Your task to perform on an android device: toggle javascript in the chrome app Image 0: 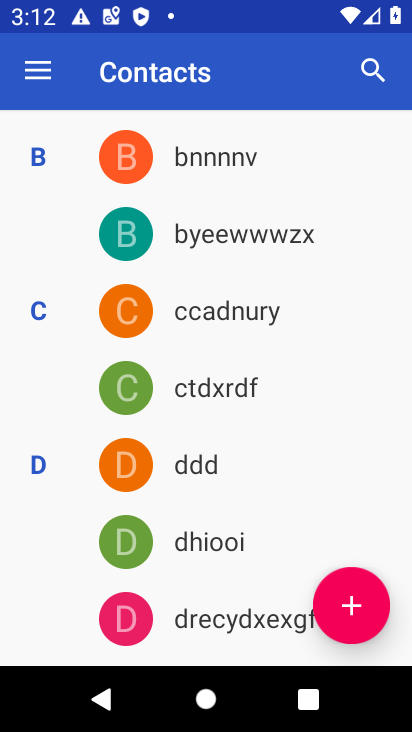
Step 0: press home button
Your task to perform on an android device: toggle javascript in the chrome app Image 1: 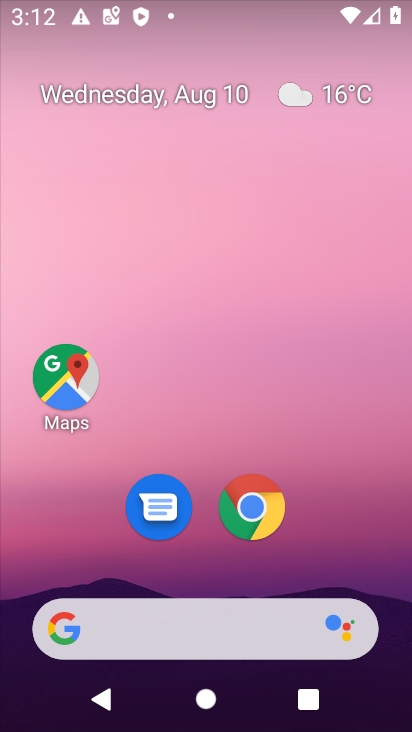
Step 1: drag from (308, 553) to (301, 4)
Your task to perform on an android device: toggle javascript in the chrome app Image 2: 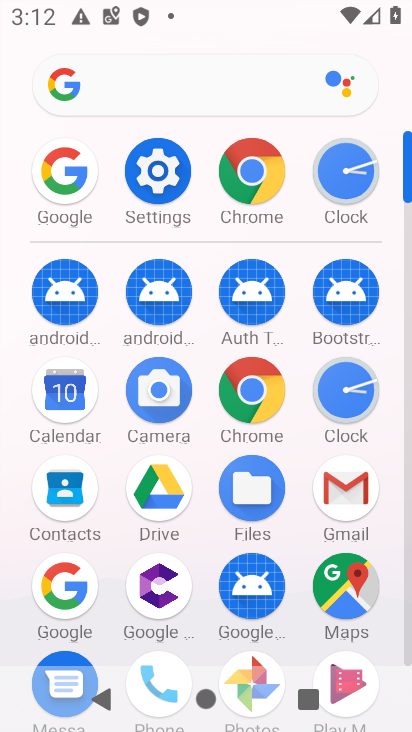
Step 2: click (251, 398)
Your task to perform on an android device: toggle javascript in the chrome app Image 3: 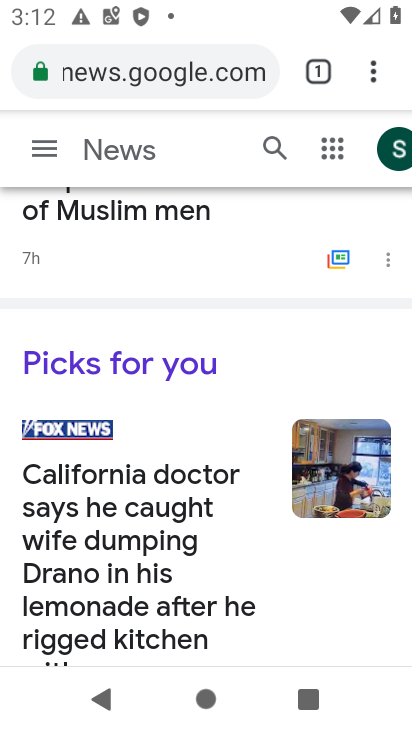
Step 3: drag from (383, 64) to (150, 501)
Your task to perform on an android device: toggle javascript in the chrome app Image 4: 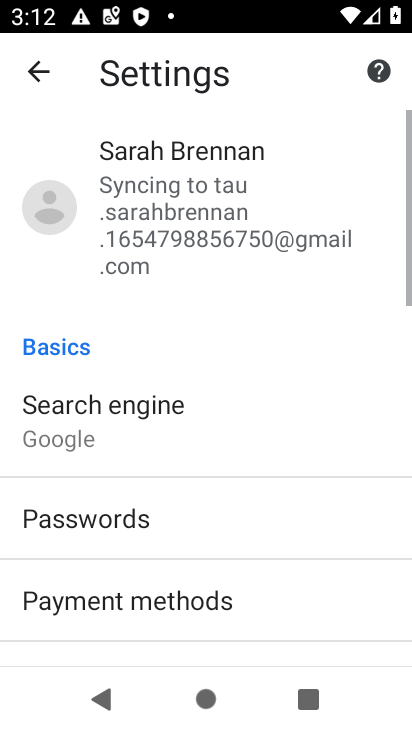
Step 4: drag from (262, 587) to (330, 18)
Your task to perform on an android device: toggle javascript in the chrome app Image 5: 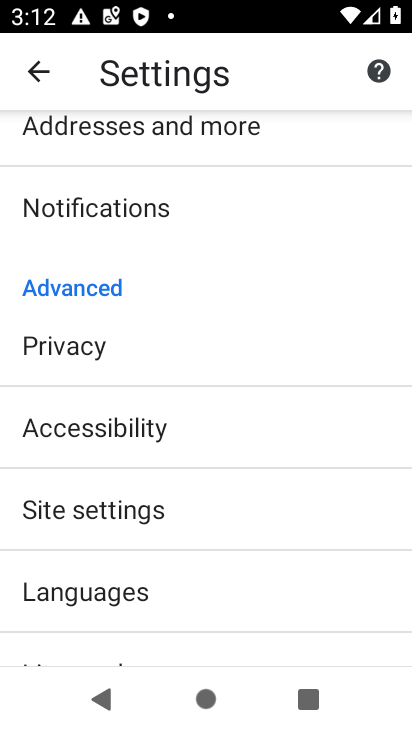
Step 5: click (127, 518)
Your task to perform on an android device: toggle javascript in the chrome app Image 6: 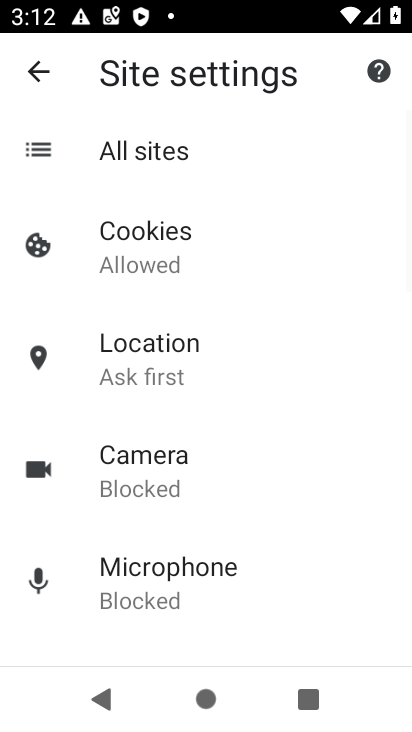
Step 6: drag from (276, 490) to (272, 104)
Your task to perform on an android device: toggle javascript in the chrome app Image 7: 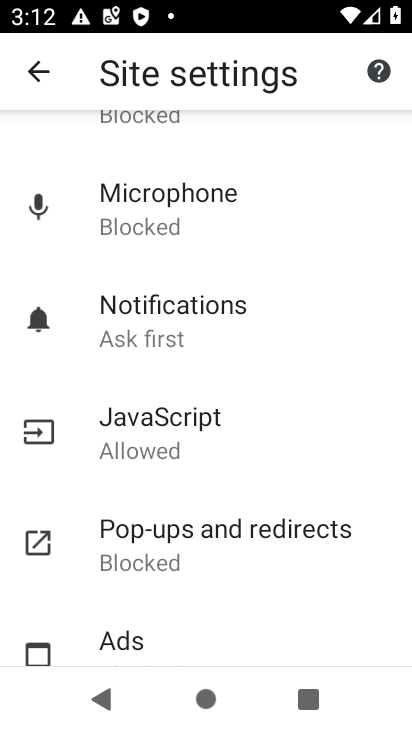
Step 7: click (129, 414)
Your task to perform on an android device: toggle javascript in the chrome app Image 8: 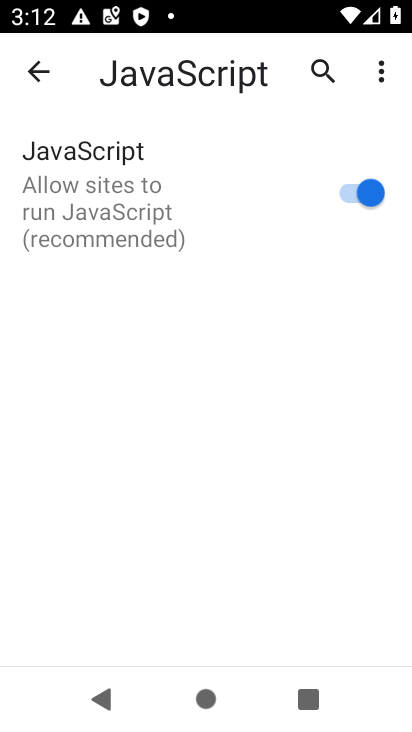
Step 8: click (365, 192)
Your task to perform on an android device: toggle javascript in the chrome app Image 9: 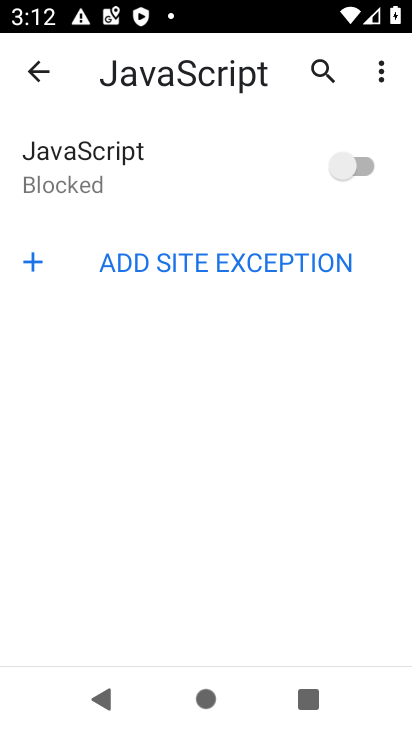
Step 9: task complete